Your task to perform on an android device: change the upload size in google photos Image 0: 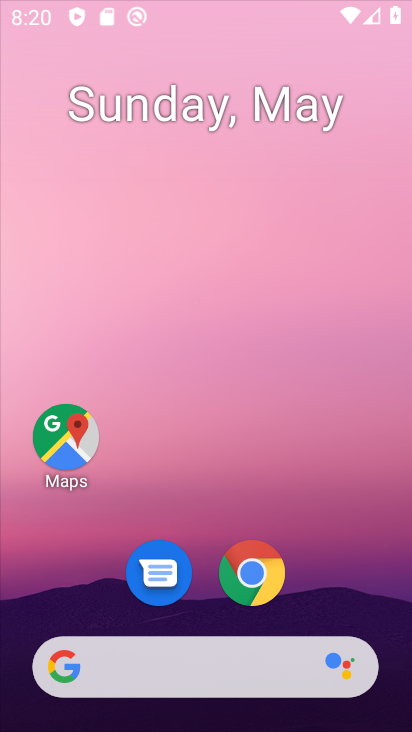
Step 0: drag from (363, 287) to (366, 181)
Your task to perform on an android device: change the upload size in google photos Image 1: 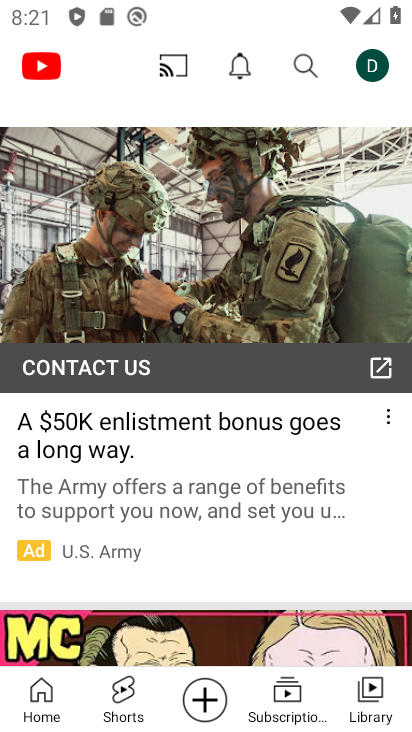
Step 1: press home button
Your task to perform on an android device: change the upload size in google photos Image 2: 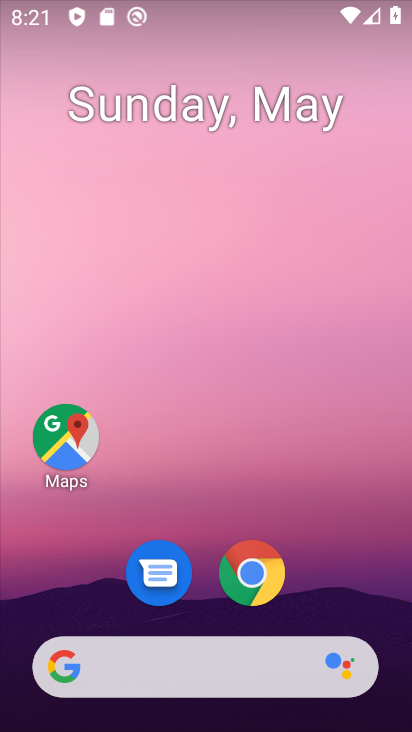
Step 2: drag from (341, 610) to (326, 64)
Your task to perform on an android device: change the upload size in google photos Image 3: 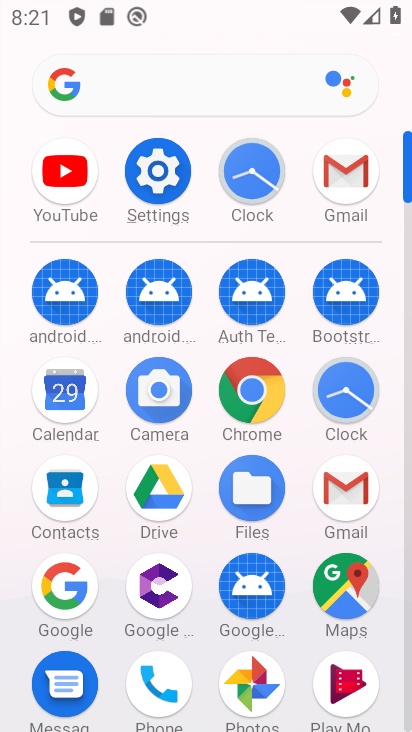
Step 3: click (255, 658)
Your task to perform on an android device: change the upload size in google photos Image 4: 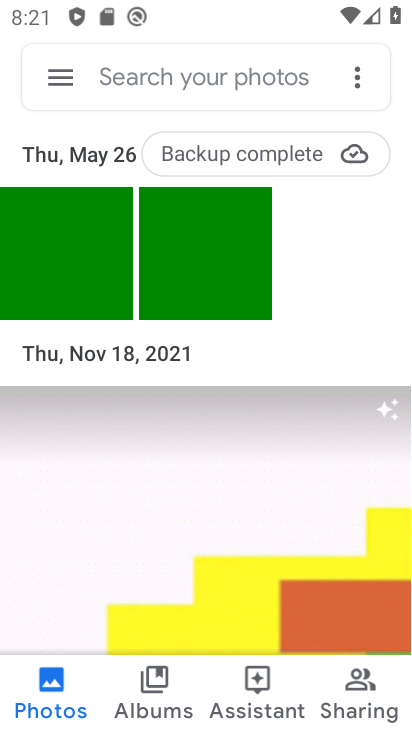
Step 4: click (75, 70)
Your task to perform on an android device: change the upload size in google photos Image 5: 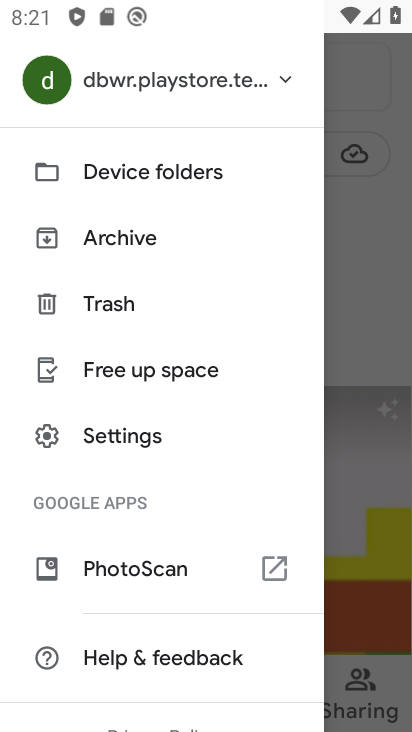
Step 5: click (106, 445)
Your task to perform on an android device: change the upload size in google photos Image 6: 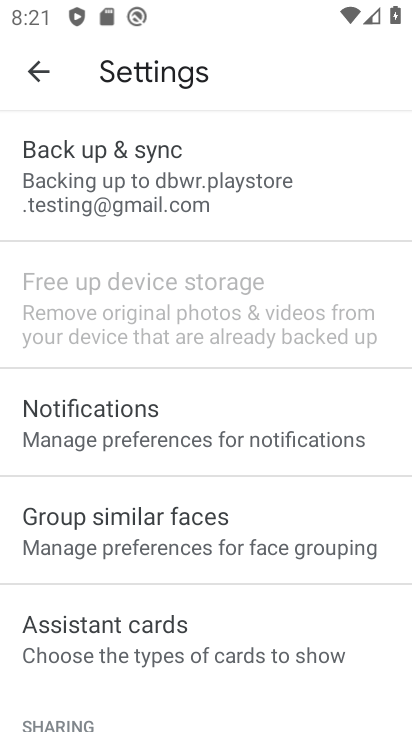
Step 6: click (189, 194)
Your task to perform on an android device: change the upload size in google photos Image 7: 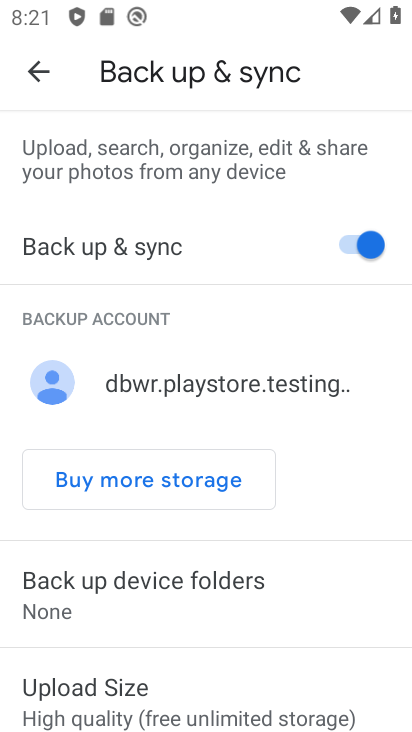
Step 7: drag from (212, 670) to (244, 230)
Your task to perform on an android device: change the upload size in google photos Image 8: 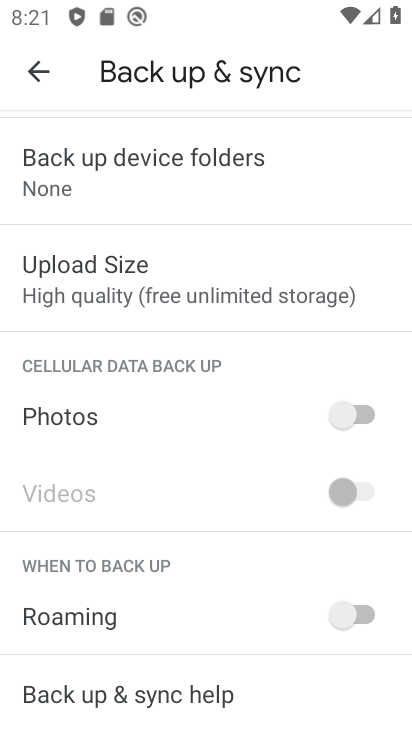
Step 8: click (239, 278)
Your task to perform on an android device: change the upload size in google photos Image 9: 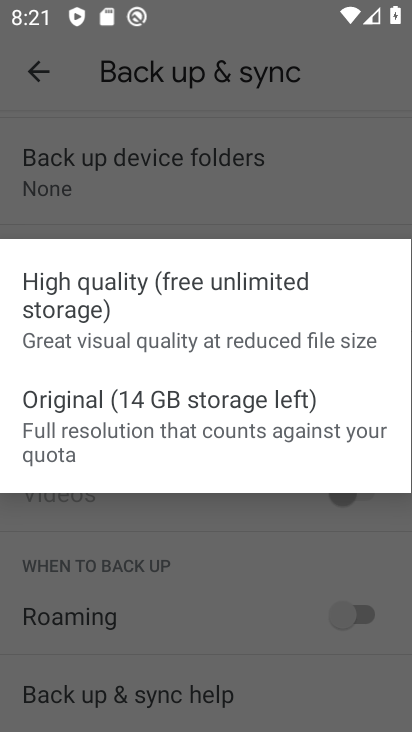
Step 9: click (211, 419)
Your task to perform on an android device: change the upload size in google photos Image 10: 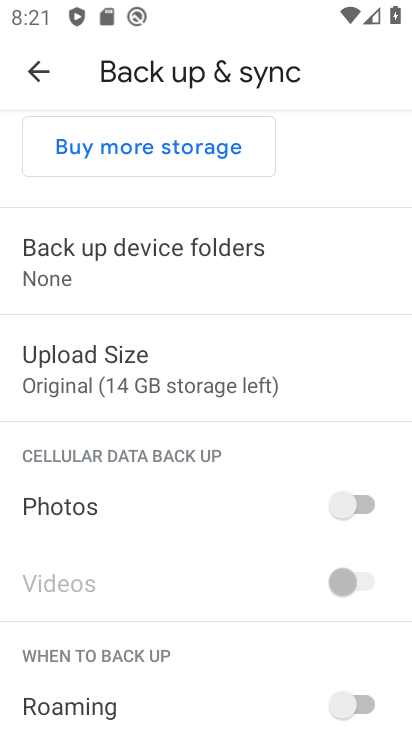
Step 10: task complete